Your task to perform on an android device: delete browsing data in the chrome app Image 0: 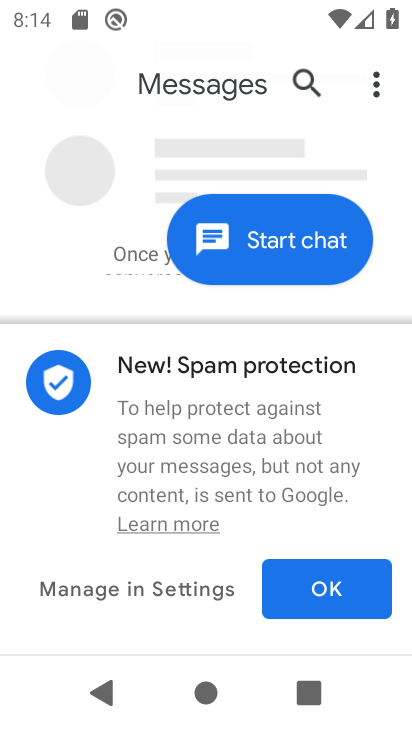
Step 0: press home button
Your task to perform on an android device: delete browsing data in the chrome app Image 1: 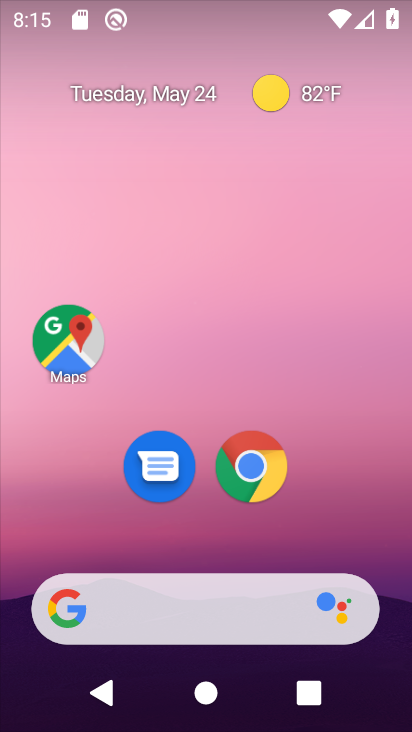
Step 1: click (249, 467)
Your task to perform on an android device: delete browsing data in the chrome app Image 2: 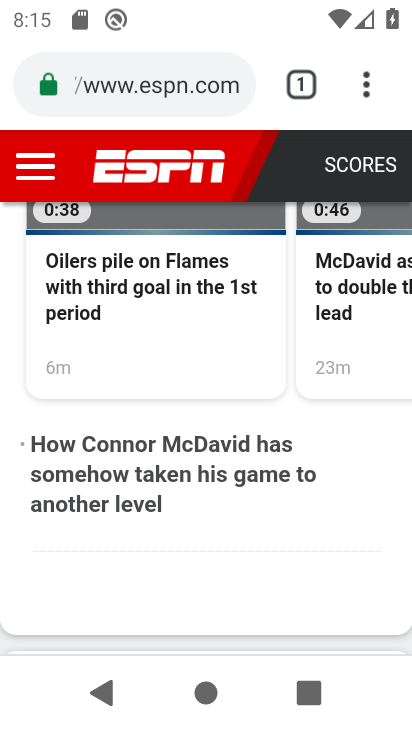
Step 2: click (371, 90)
Your task to perform on an android device: delete browsing data in the chrome app Image 3: 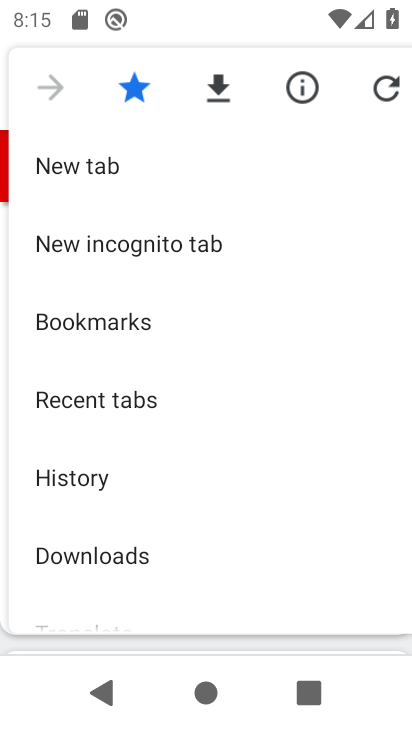
Step 3: drag from (147, 566) to (154, 211)
Your task to perform on an android device: delete browsing data in the chrome app Image 4: 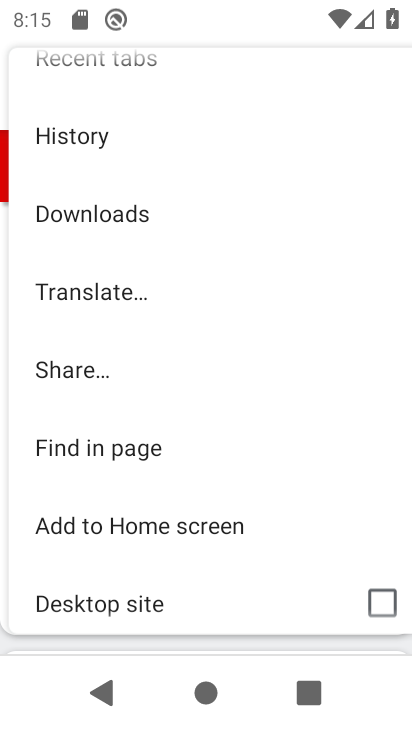
Step 4: drag from (97, 609) to (104, 345)
Your task to perform on an android device: delete browsing data in the chrome app Image 5: 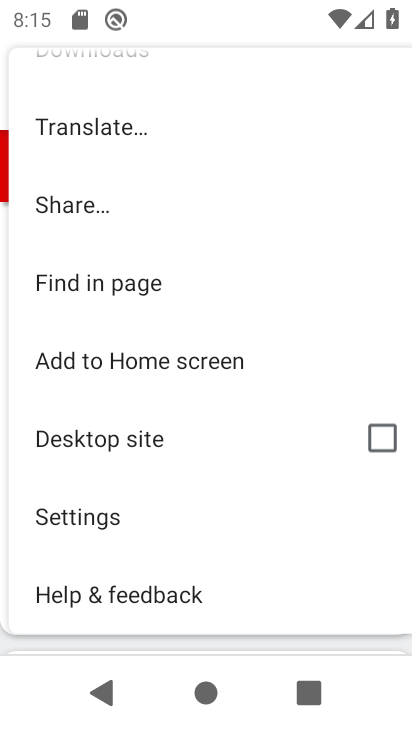
Step 5: click (113, 510)
Your task to perform on an android device: delete browsing data in the chrome app Image 6: 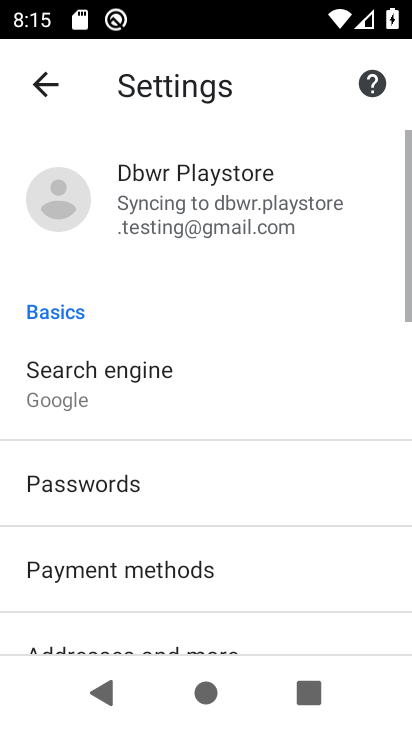
Step 6: drag from (95, 636) to (96, 288)
Your task to perform on an android device: delete browsing data in the chrome app Image 7: 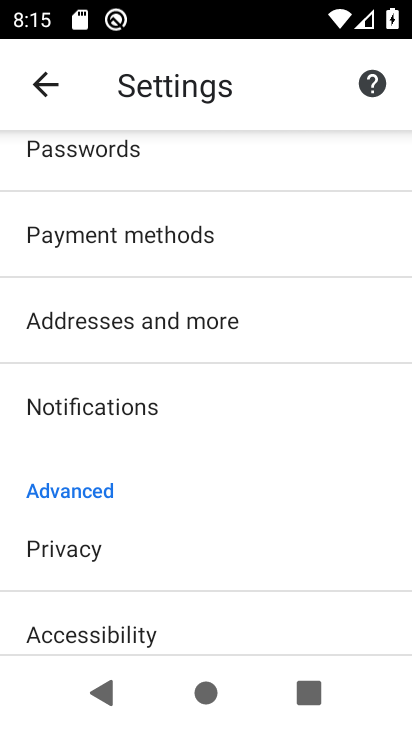
Step 7: click (87, 553)
Your task to perform on an android device: delete browsing data in the chrome app Image 8: 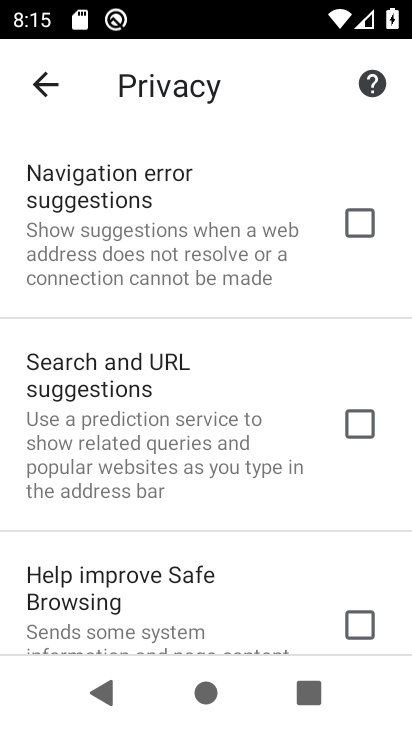
Step 8: drag from (138, 573) to (138, 293)
Your task to perform on an android device: delete browsing data in the chrome app Image 9: 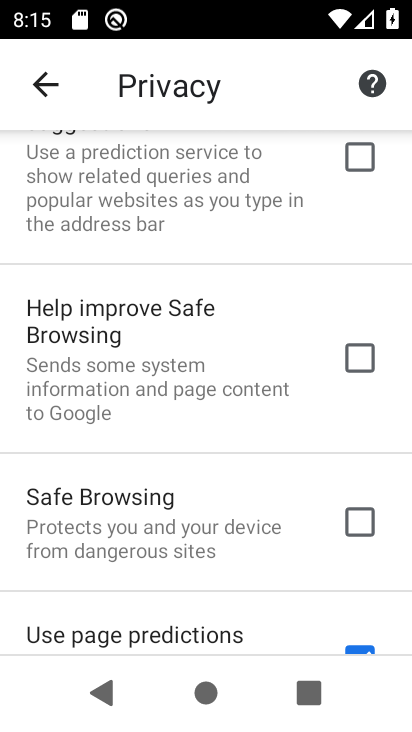
Step 9: drag from (196, 583) to (198, 285)
Your task to perform on an android device: delete browsing data in the chrome app Image 10: 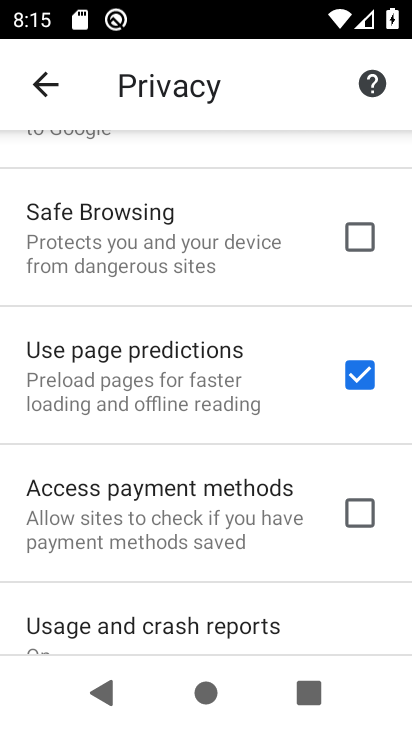
Step 10: drag from (197, 584) to (197, 305)
Your task to perform on an android device: delete browsing data in the chrome app Image 11: 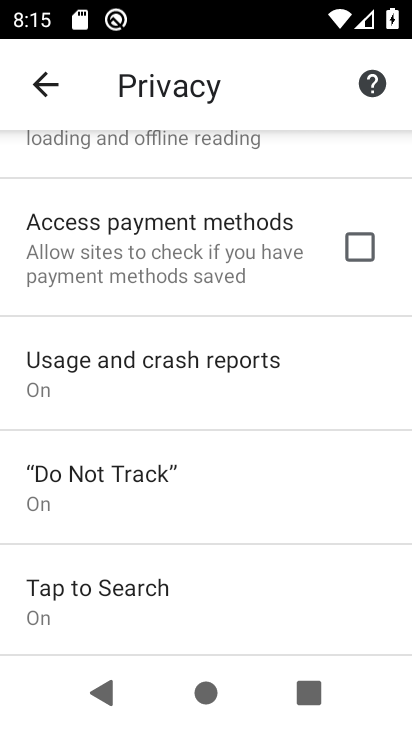
Step 11: drag from (130, 615) to (140, 311)
Your task to perform on an android device: delete browsing data in the chrome app Image 12: 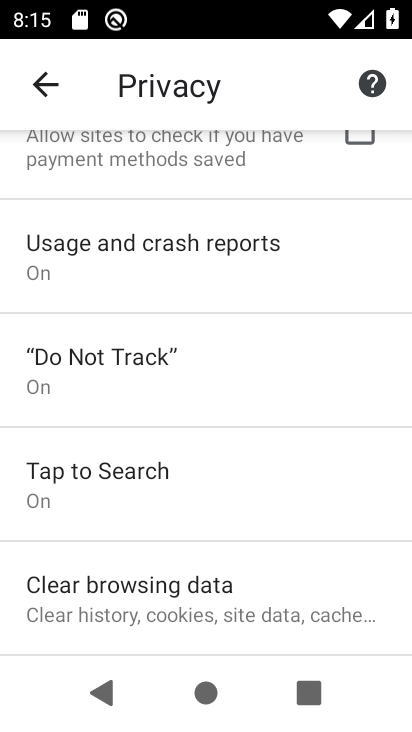
Step 12: click (138, 598)
Your task to perform on an android device: delete browsing data in the chrome app Image 13: 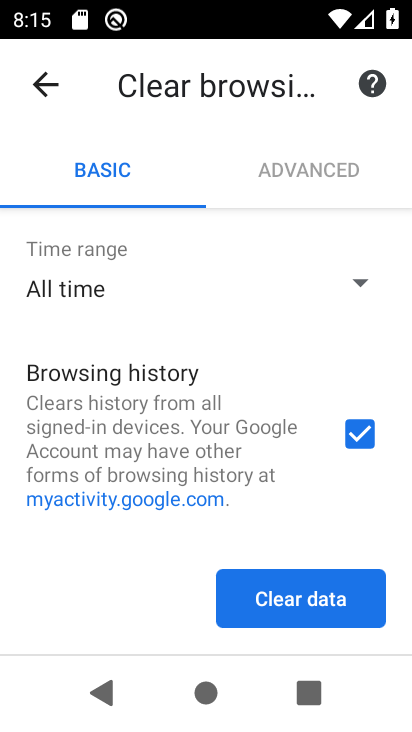
Step 13: drag from (336, 501) to (338, 260)
Your task to perform on an android device: delete browsing data in the chrome app Image 14: 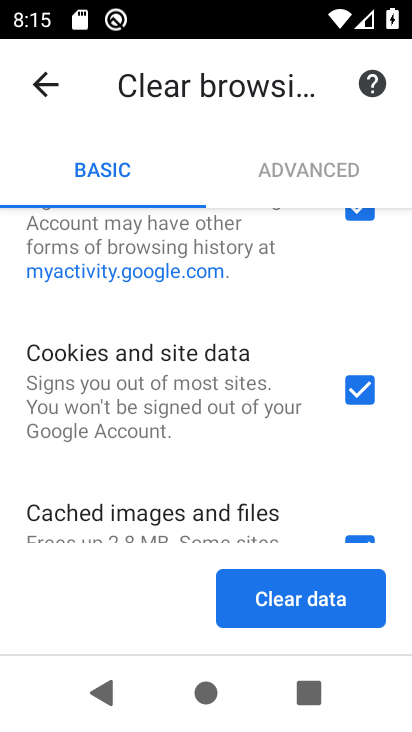
Step 14: click (318, 600)
Your task to perform on an android device: delete browsing data in the chrome app Image 15: 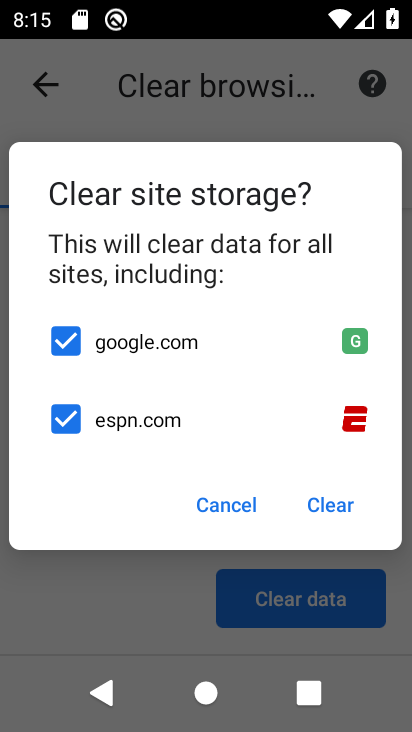
Step 15: click (329, 496)
Your task to perform on an android device: delete browsing data in the chrome app Image 16: 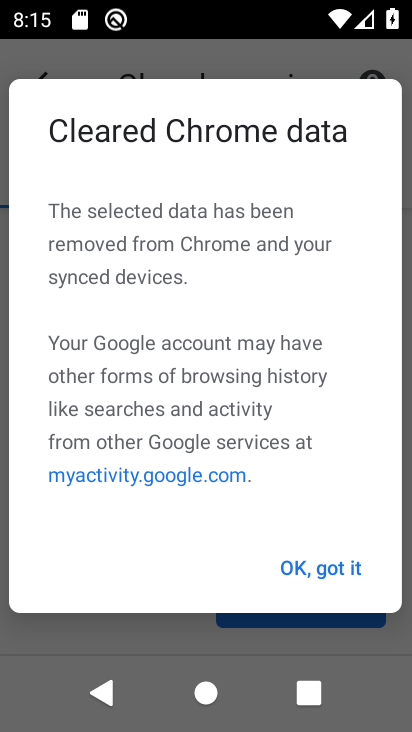
Step 16: click (290, 570)
Your task to perform on an android device: delete browsing data in the chrome app Image 17: 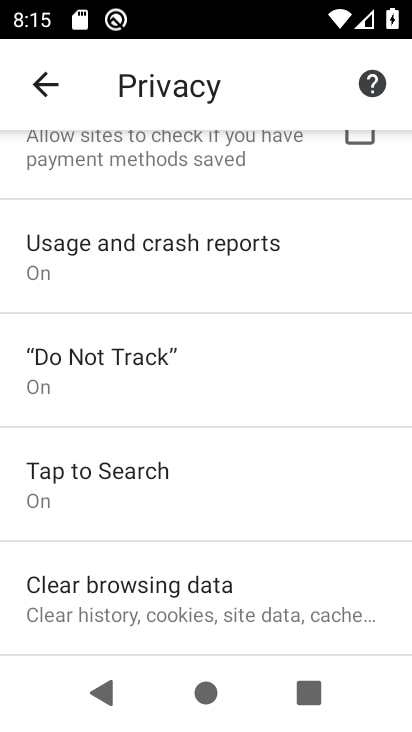
Step 17: task complete